Your task to perform on an android device: Search for Mexican restaurants on Maps Image 0: 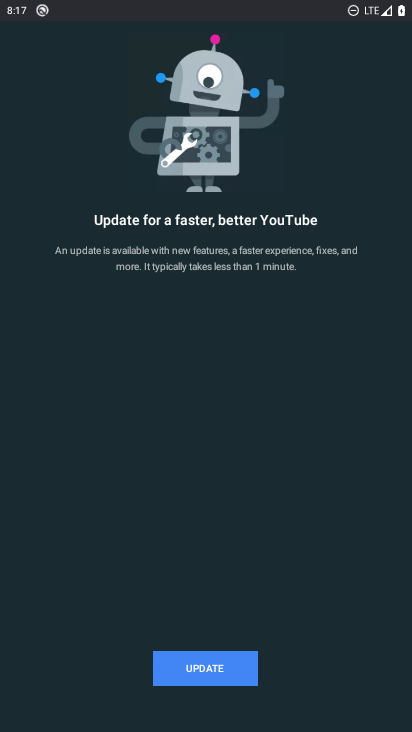
Step 0: drag from (115, 725) to (37, 44)
Your task to perform on an android device: Search for Mexican restaurants on Maps Image 1: 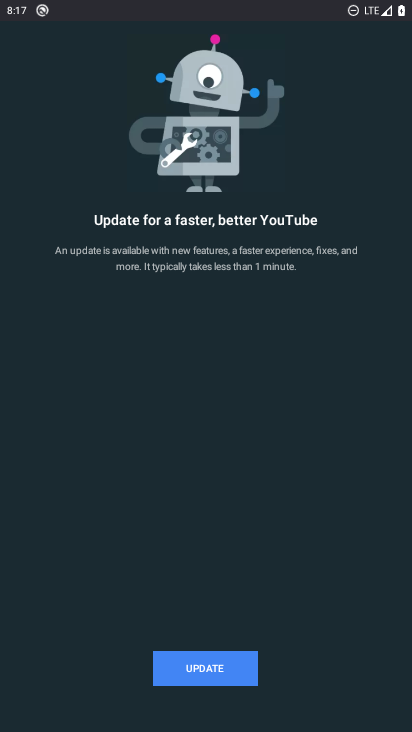
Step 1: press back button
Your task to perform on an android device: Search for Mexican restaurants on Maps Image 2: 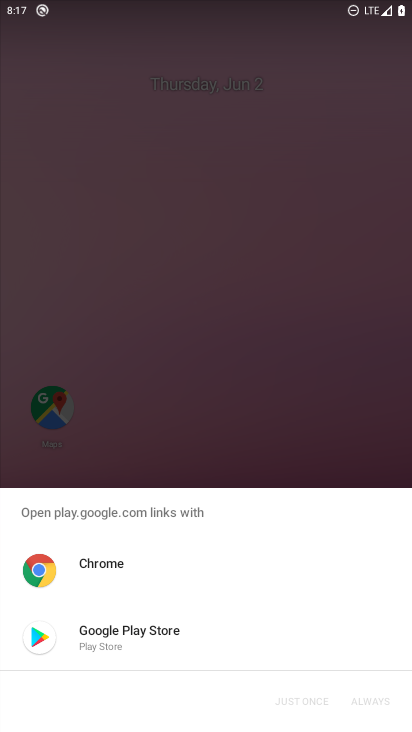
Step 2: press back button
Your task to perform on an android device: Search for Mexican restaurants on Maps Image 3: 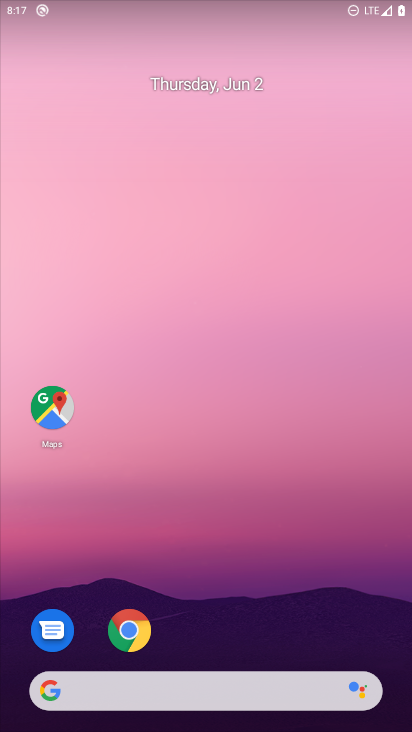
Step 3: click (55, 423)
Your task to perform on an android device: Search for Mexican restaurants on Maps Image 4: 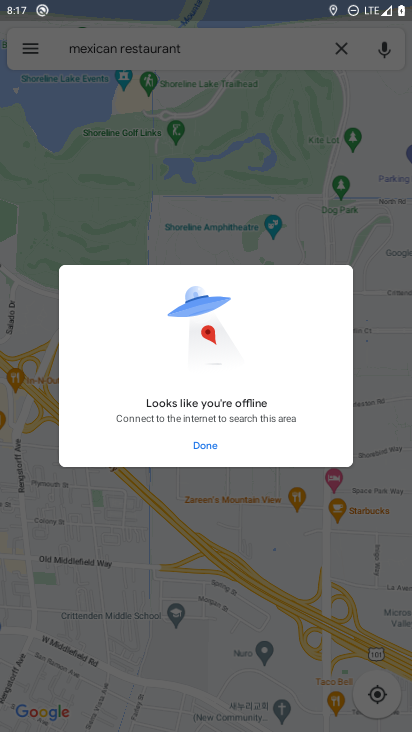
Step 4: click (205, 453)
Your task to perform on an android device: Search for Mexican restaurants on Maps Image 5: 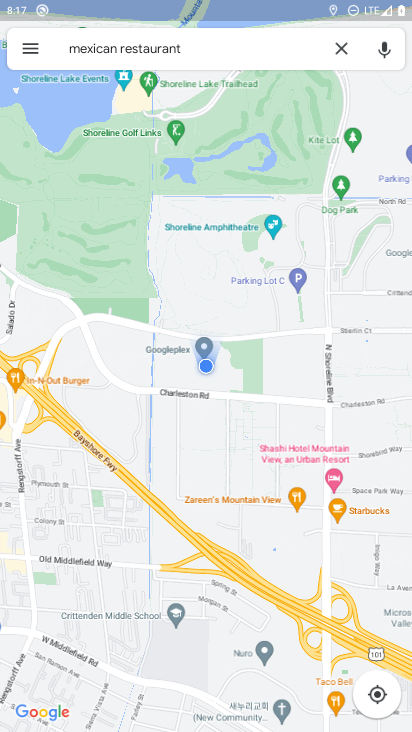
Step 5: click (196, 54)
Your task to perform on an android device: Search for Mexican restaurants on Maps Image 6: 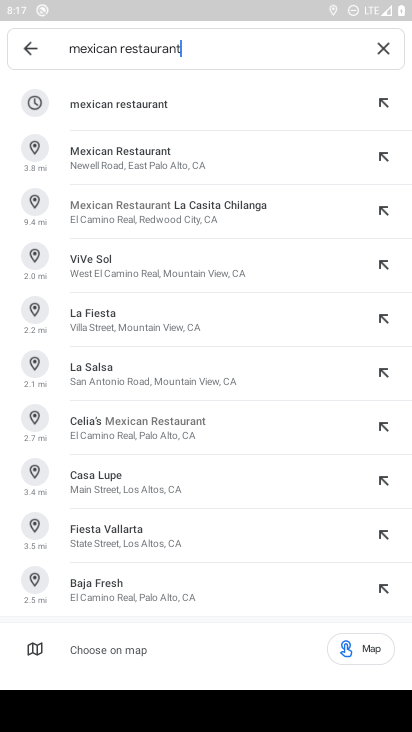
Step 6: click (138, 115)
Your task to perform on an android device: Search for Mexican restaurants on Maps Image 7: 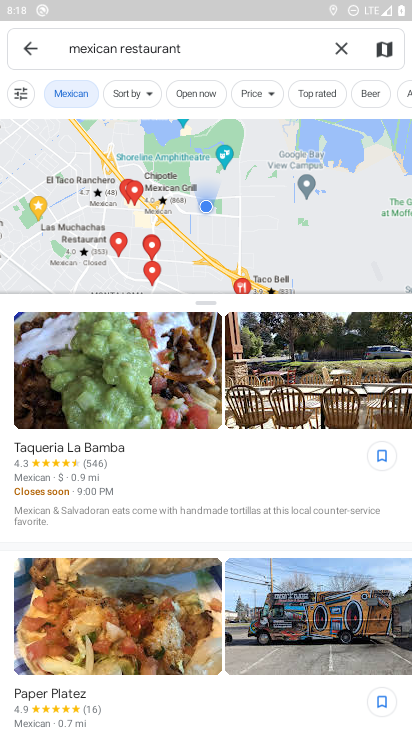
Step 7: task complete